Your task to perform on an android device: Set the phone to "Do not disturb". Image 0: 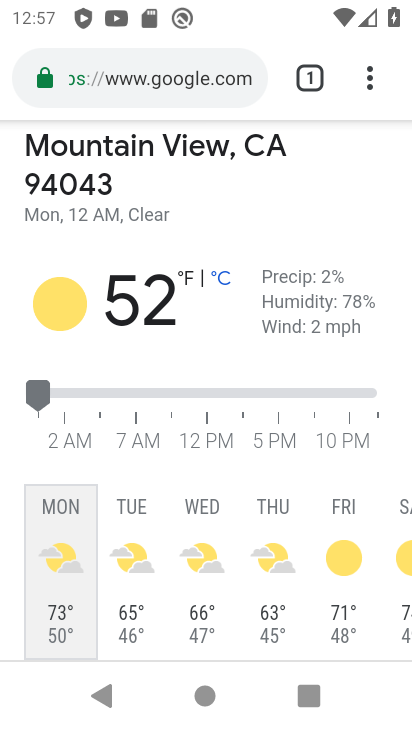
Step 0: press home button
Your task to perform on an android device: Set the phone to "Do not disturb". Image 1: 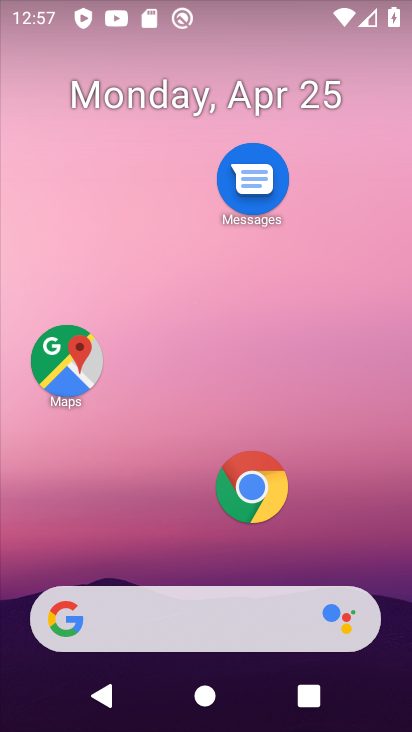
Step 1: drag from (249, 575) to (273, 77)
Your task to perform on an android device: Set the phone to "Do not disturb". Image 2: 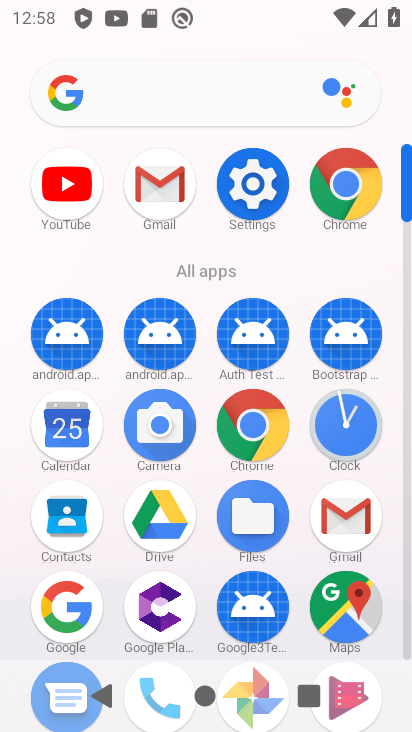
Step 2: click (254, 171)
Your task to perform on an android device: Set the phone to "Do not disturb". Image 3: 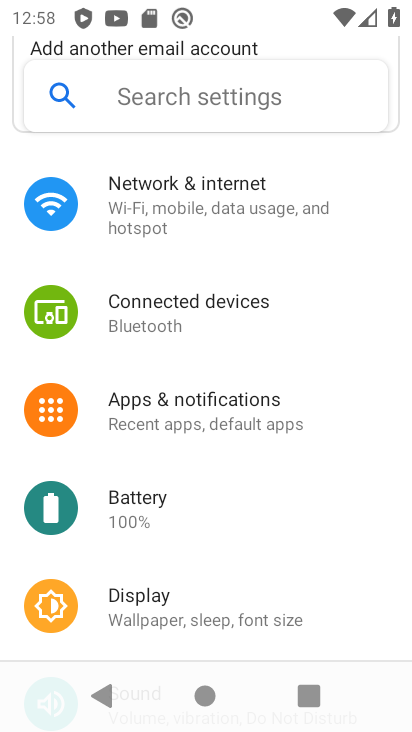
Step 3: drag from (226, 582) to (275, 169)
Your task to perform on an android device: Set the phone to "Do not disturb". Image 4: 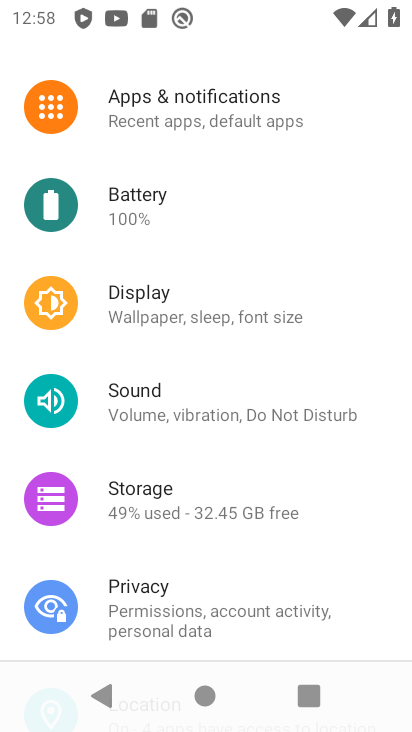
Step 4: click (237, 430)
Your task to perform on an android device: Set the phone to "Do not disturb". Image 5: 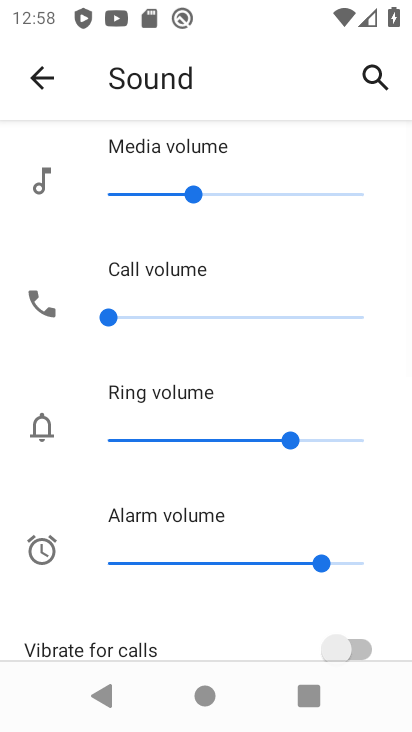
Step 5: drag from (213, 642) to (223, 109)
Your task to perform on an android device: Set the phone to "Do not disturb". Image 6: 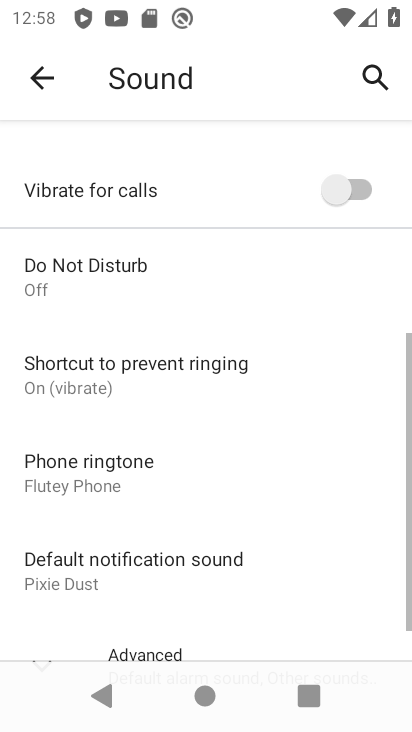
Step 6: click (166, 316)
Your task to perform on an android device: Set the phone to "Do not disturb". Image 7: 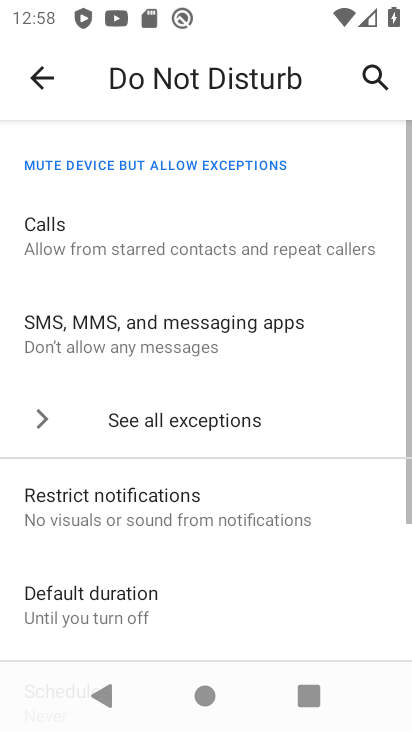
Step 7: drag from (169, 627) to (225, 172)
Your task to perform on an android device: Set the phone to "Do not disturb". Image 8: 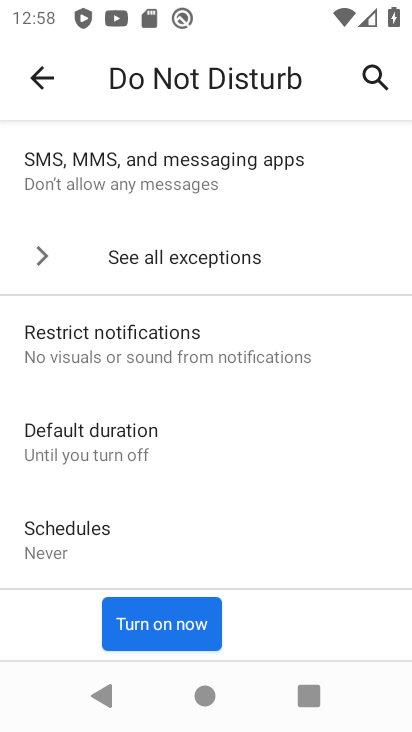
Step 8: click (185, 634)
Your task to perform on an android device: Set the phone to "Do not disturb". Image 9: 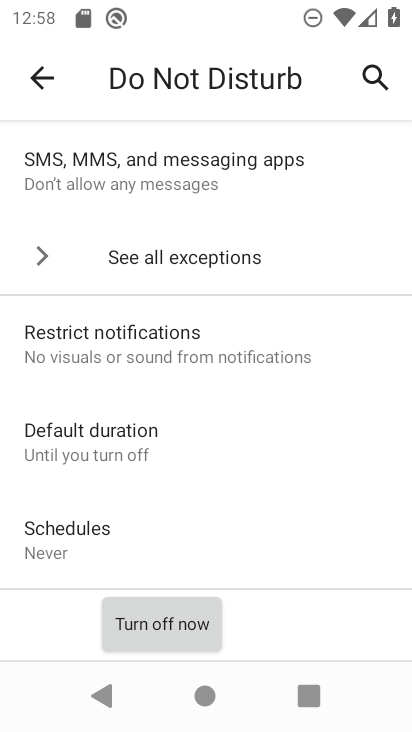
Step 9: task complete